Your task to perform on an android device: delete the emails in spam in the gmail app Image 0: 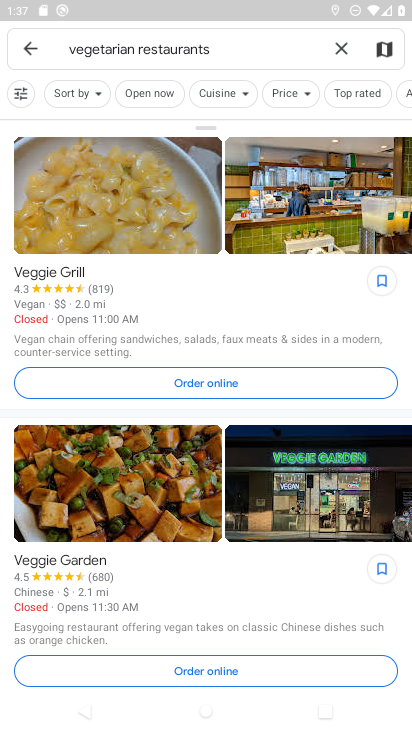
Step 0: press home button
Your task to perform on an android device: delete the emails in spam in the gmail app Image 1: 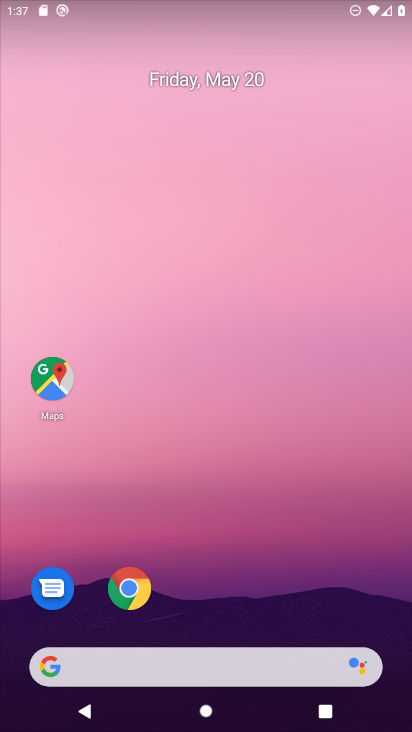
Step 1: drag from (400, 632) to (320, 180)
Your task to perform on an android device: delete the emails in spam in the gmail app Image 2: 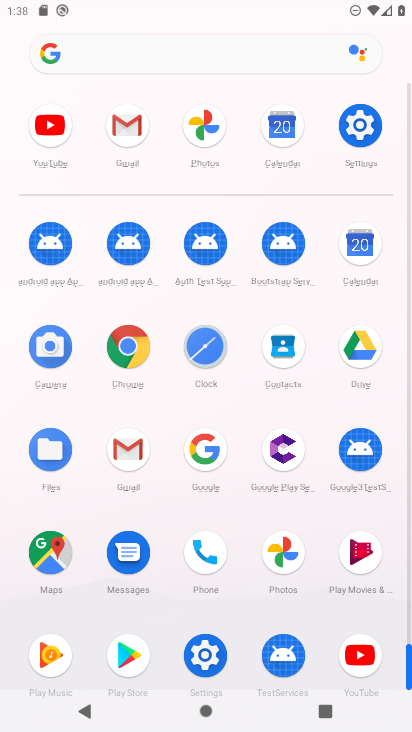
Step 2: click (127, 450)
Your task to perform on an android device: delete the emails in spam in the gmail app Image 3: 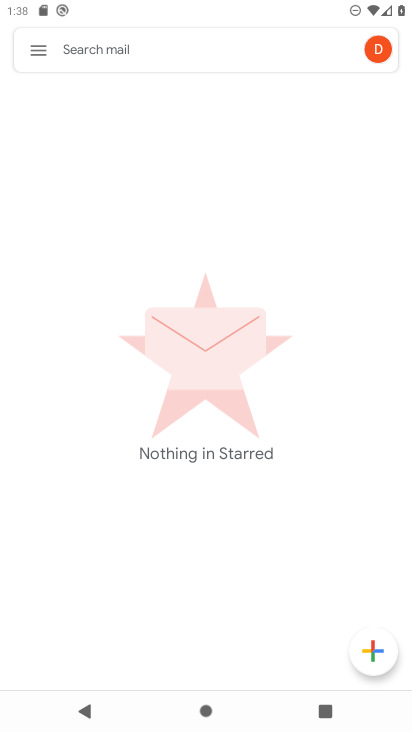
Step 3: click (41, 48)
Your task to perform on an android device: delete the emails in spam in the gmail app Image 4: 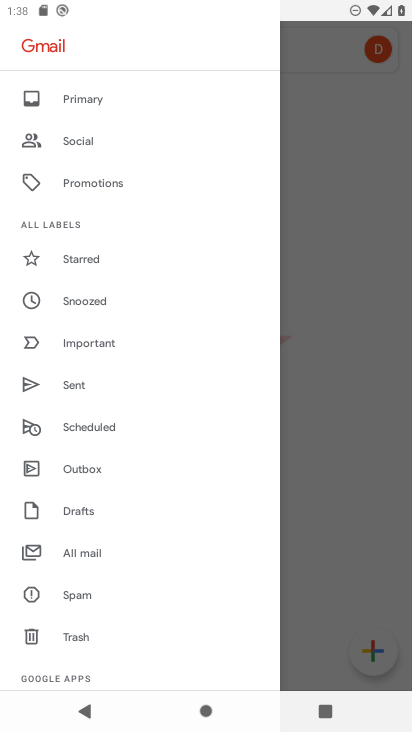
Step 4: click (85, 551)
Your task to perform on an android device: delete the emails in spam in the gmail app Image 5: 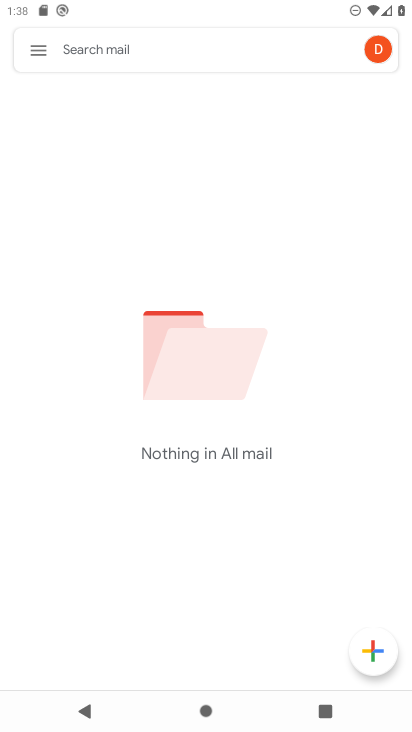
Step 5: task complete